Your task to perform on an android device: open sync settings in chrome Image 0: 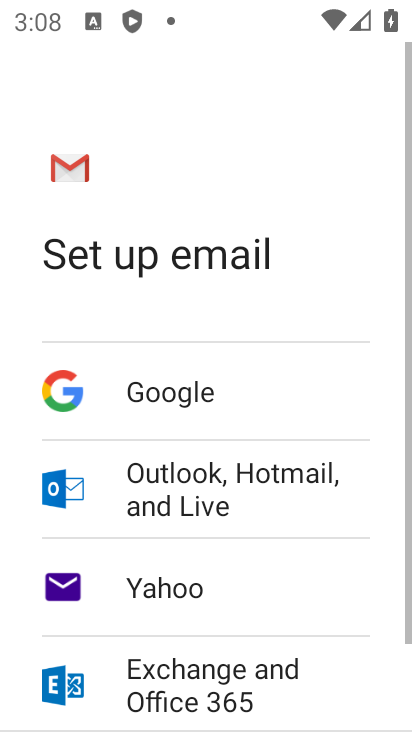
Step 0: press home button
Your task to perform on an android device: open sync settings in chrome Image 1: 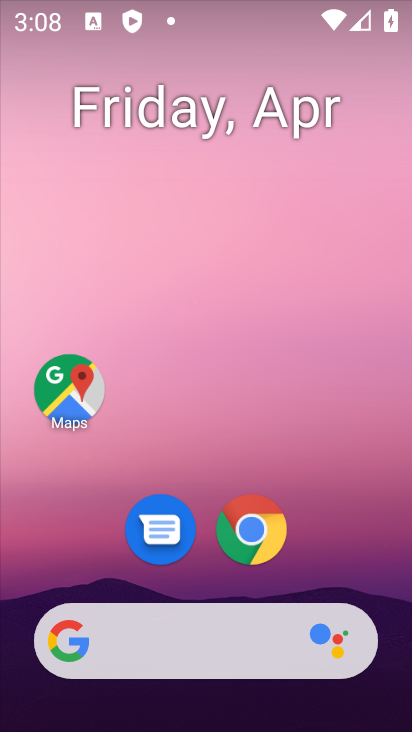
Step 1: drag from (189, 566) to (231, 255)
Your task to perform on an android device: open sync settings in chrome Image 2: 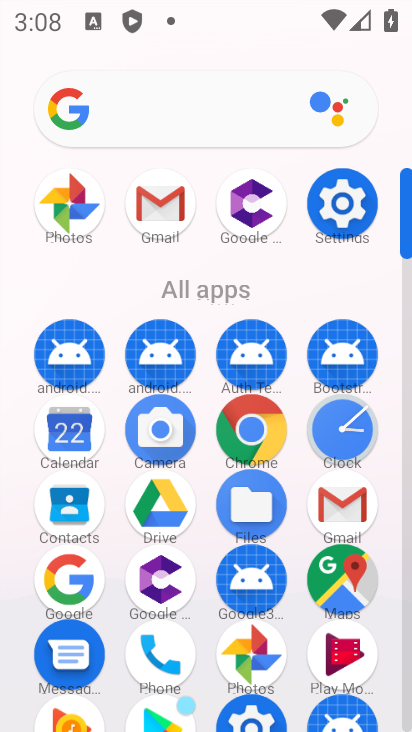
Step 2: click (259, 446)
Your task to perform on an android device: open sync settings in chrome Image 3: 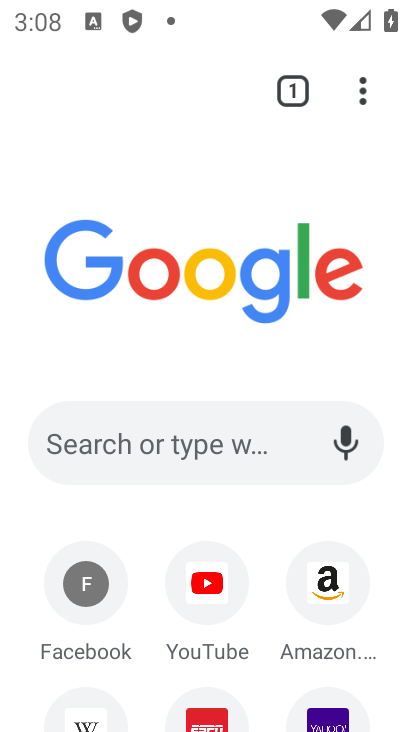
Step 3: click (367, 103)
Your task to perform on an android device: open sync settings in chrome Image 4: 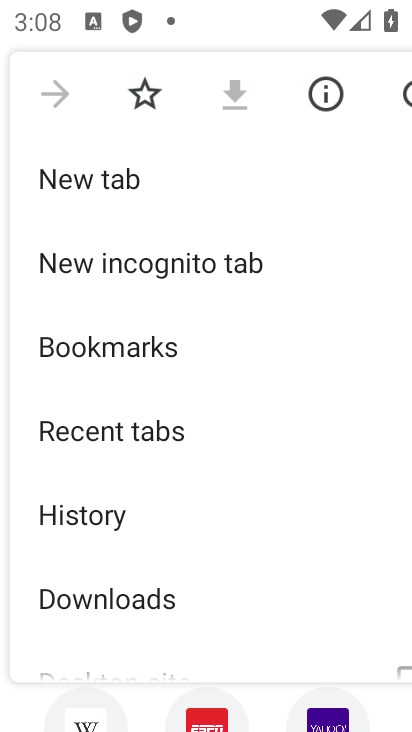
Step 4: drag from (197, 585) to (226, 356)
Your task to perform on an android device: open sync settings in chrome Image 5: 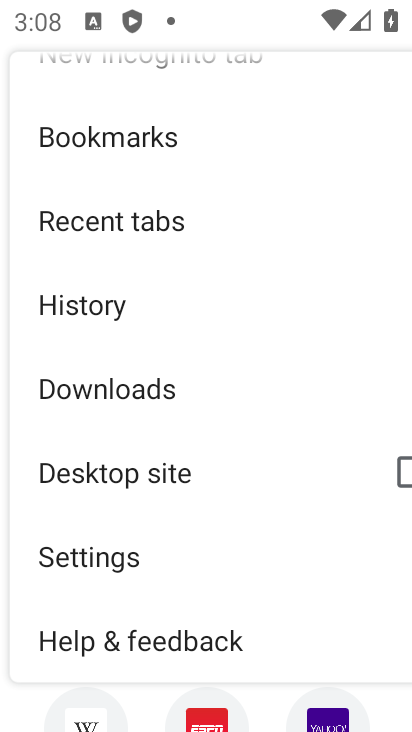
Step 5: click (151, 553)
Your task to perform on an android device: open sync settings in chrome Image 6: 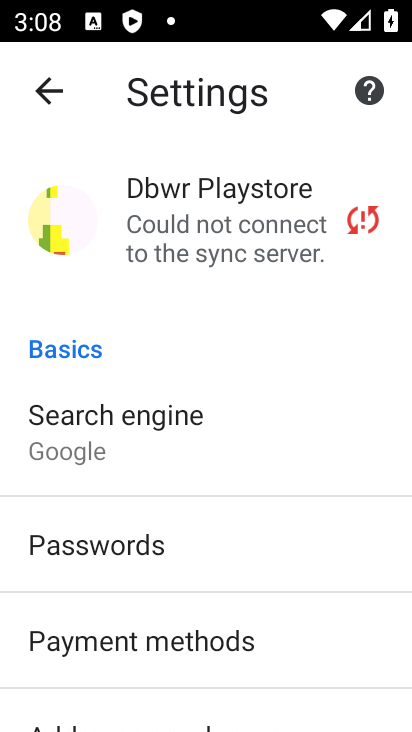
Step 6: click (295, 191)
Your task to perform on an android device: open sync settings in chrome Image 7: 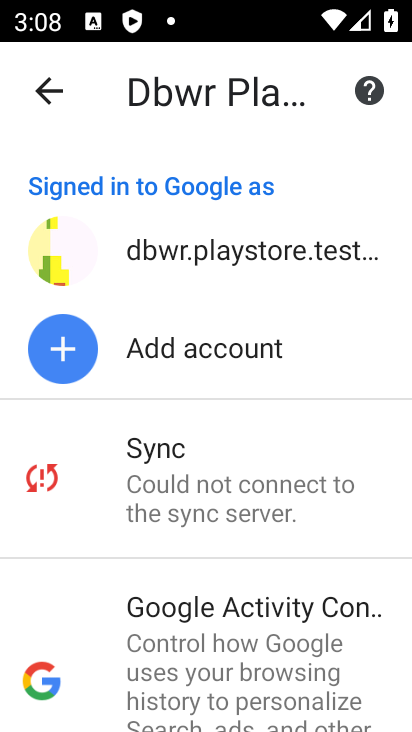
Step 7: click (223, 488)
Your task to perform on an android device: open sync settings in chrome Image 8: 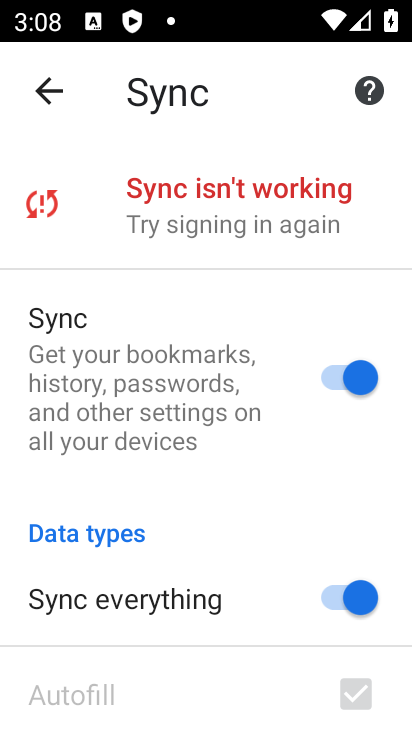
Step 8: task complete